Your task to perform on an android device: Add logitech g pro to the cart on amazon, then select checkout. Image 0: 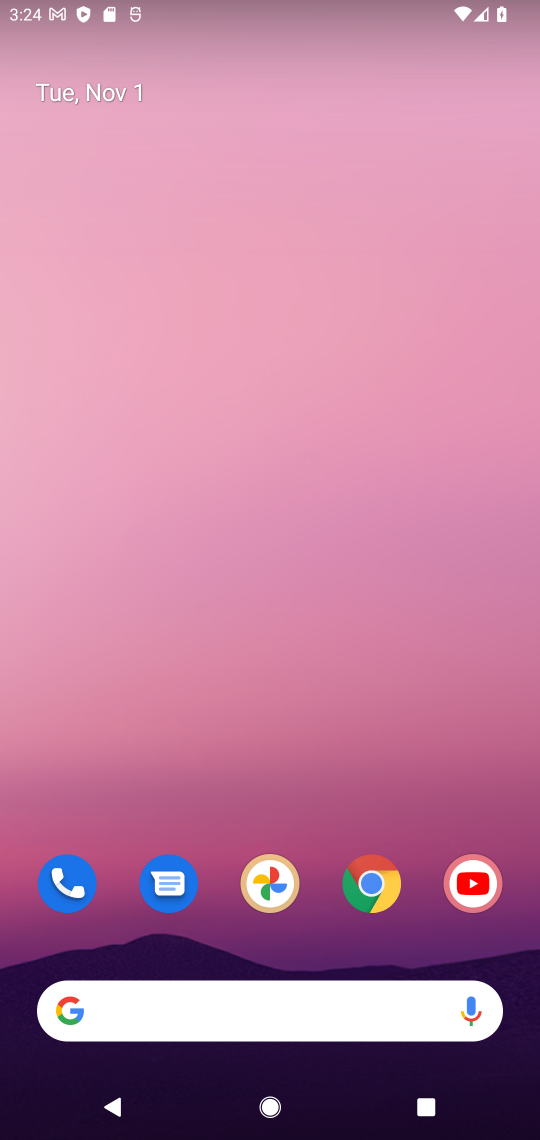
Step 0: click (371, 898)
Your task to perform on an android device: Add logitech g pro to the cart on amazon, then select checkout. Image 1: 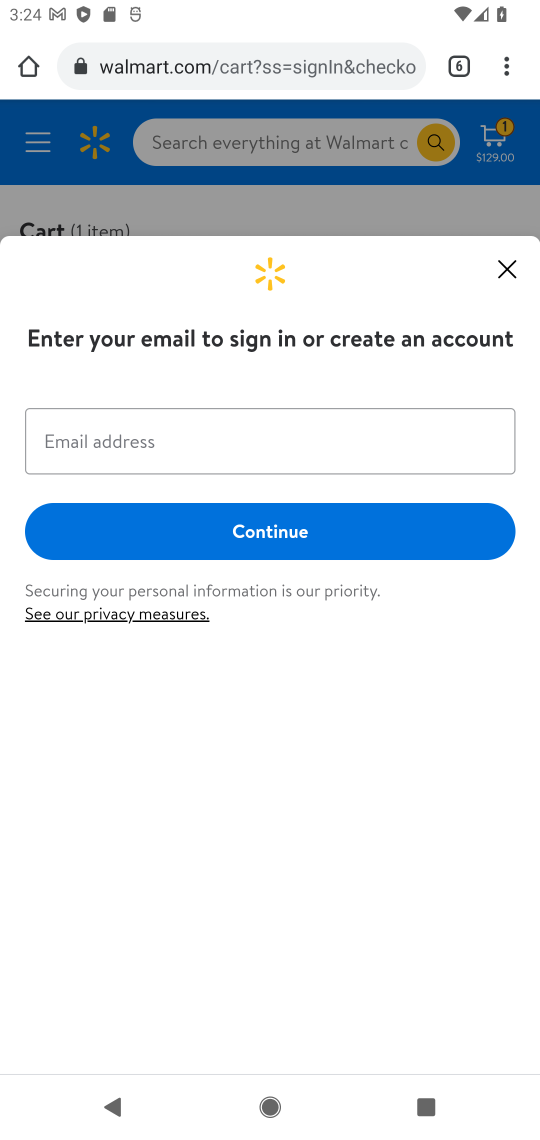
Step 1: click (459, 60)
Your task to perform on an android device: Add logitech g pro to the cart on amazon, then select checkout. Image 2: 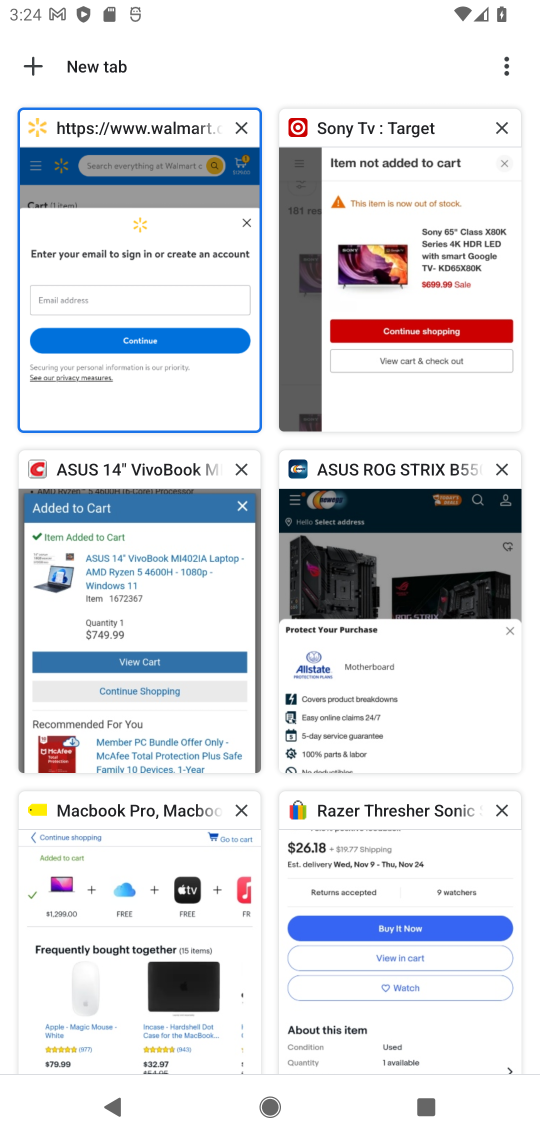
Step 2: click (27, 60)
Your task to perform on an android device: Add logitech g pro to the cart on amazon, then select checkout. Image 3: 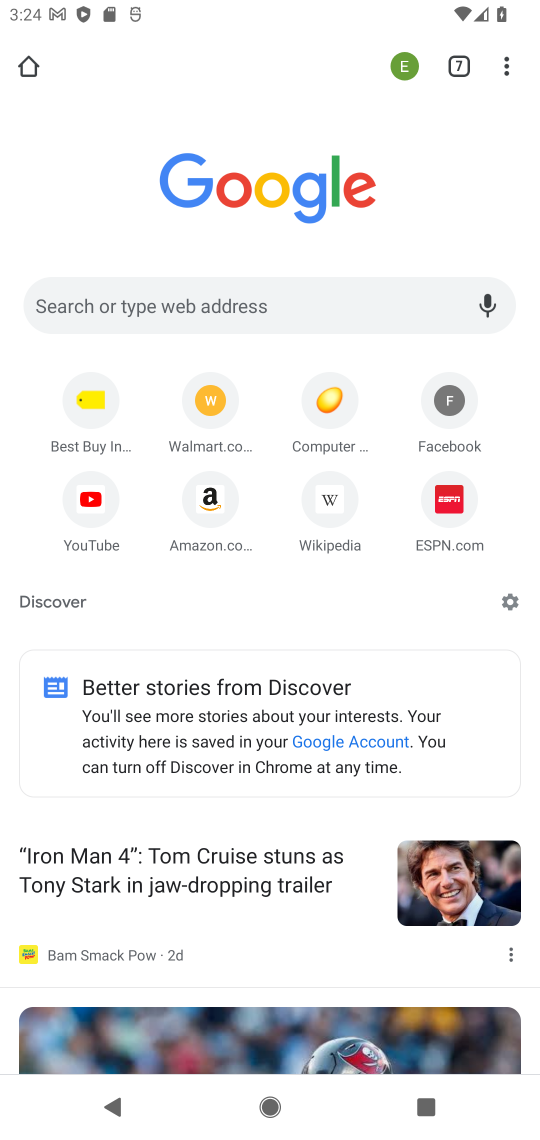
Step 3: type "amazon"
Your task to perform on an android device: Add logitech g pro to the cart on amazon, then select checkout. Image 4: 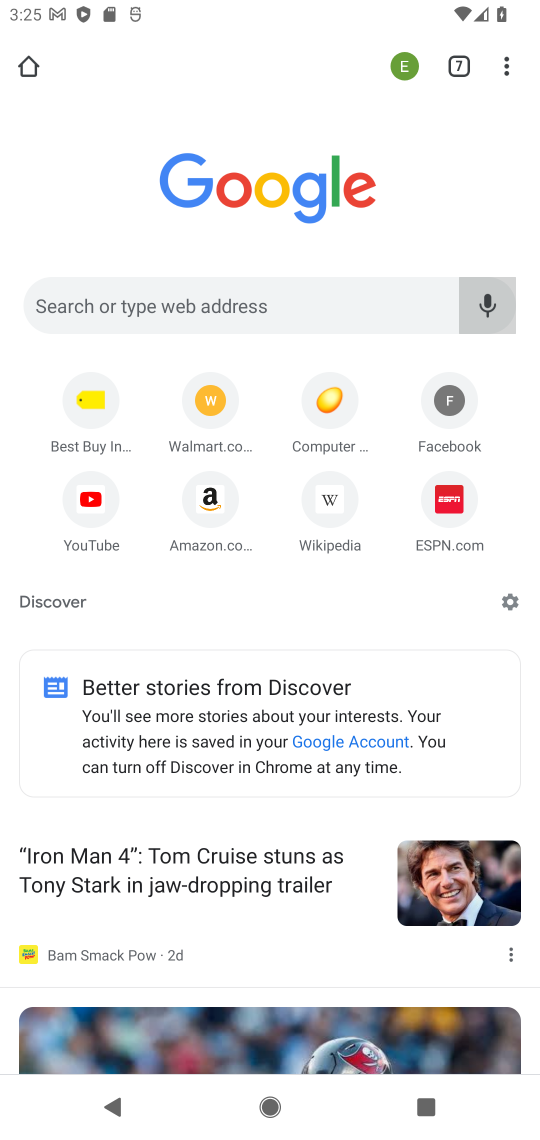
Step 4: click (211, 285)
Your task to perform on an android device: Add logitech g pro to the cart on amazon, then select checkout. Image 5: 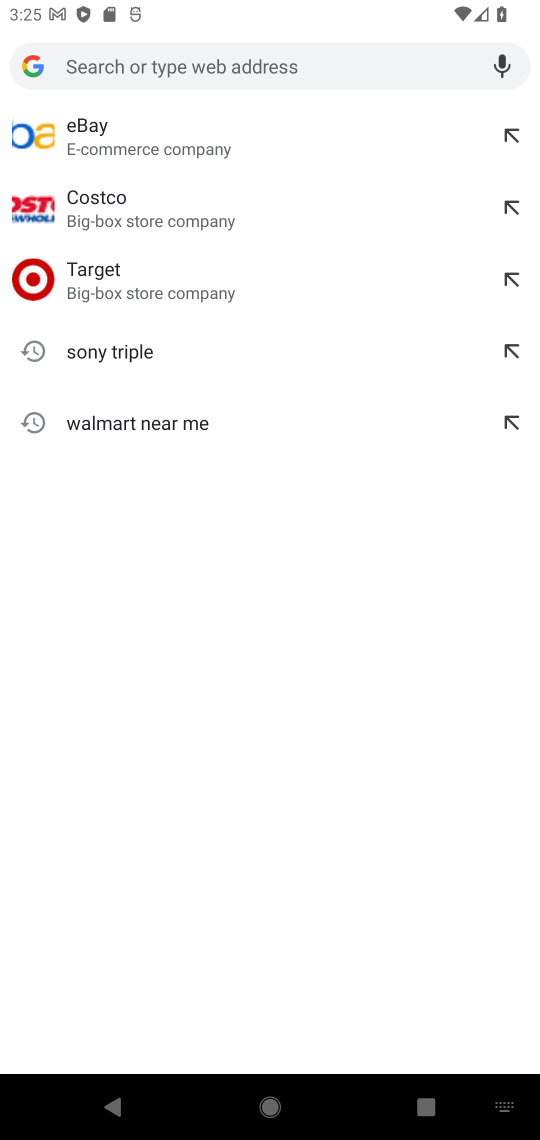
Step 5: type "amazon"
Your task to perform on an android device: Add logitech g pro to the cart on amazon, then select checkout. Image 6: 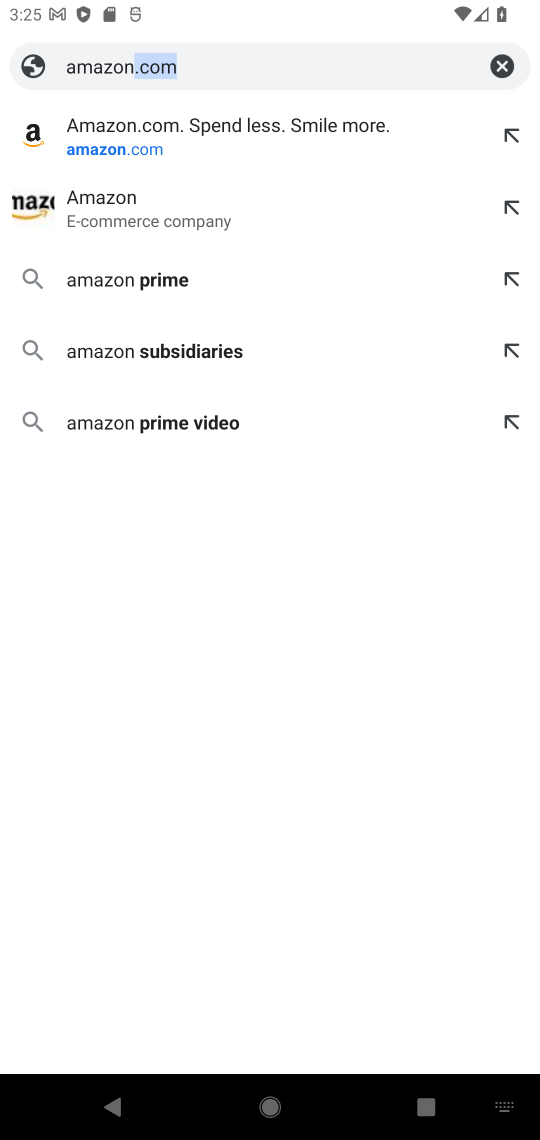
Step 6: click (116, 117)
Your task to perform on an android device: Add logitech g pro to the cart on amazon, then select checkout. Image 7: 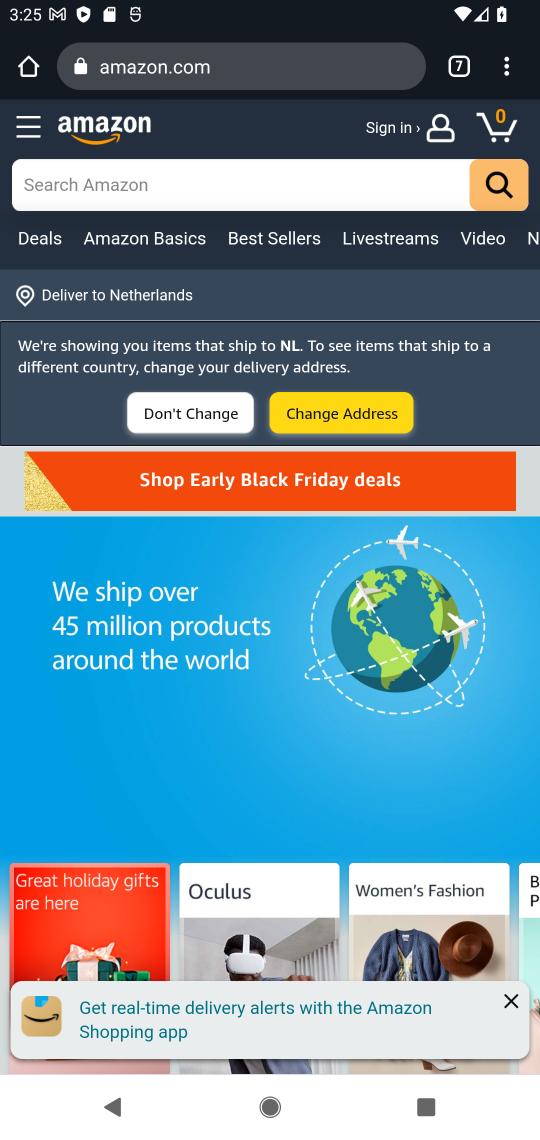
Step 7: click (204, 179)
Your task to perform on an android device: Add logitech g pro to the cart on amazon, then select checkout. Image 8: 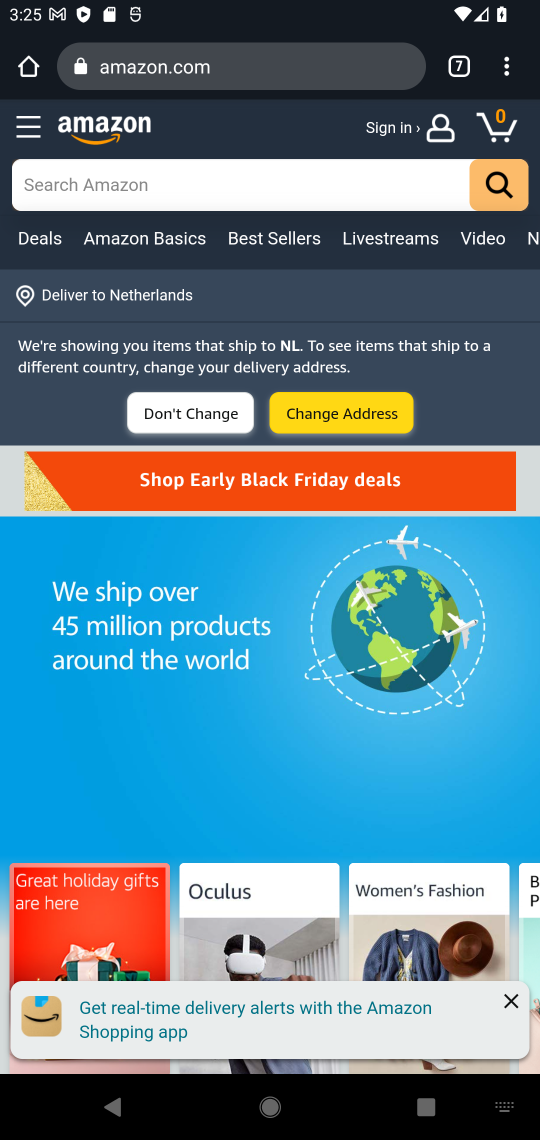
Step 8: type "logitech g pro"
Your task to perform on an android device: Add logitech g pro to the cart on amazon, then select checkout. Image 9: 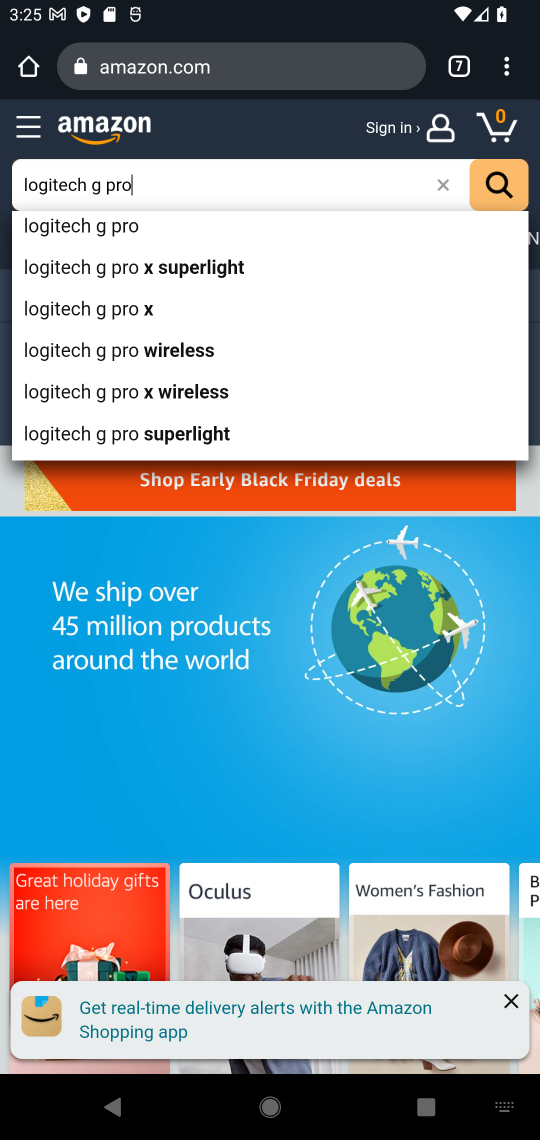
Step 9: click (94, 230)
Your task to perform on an android device: Add logitech g pro to the cart on amazon, then select checkout. Image 10: 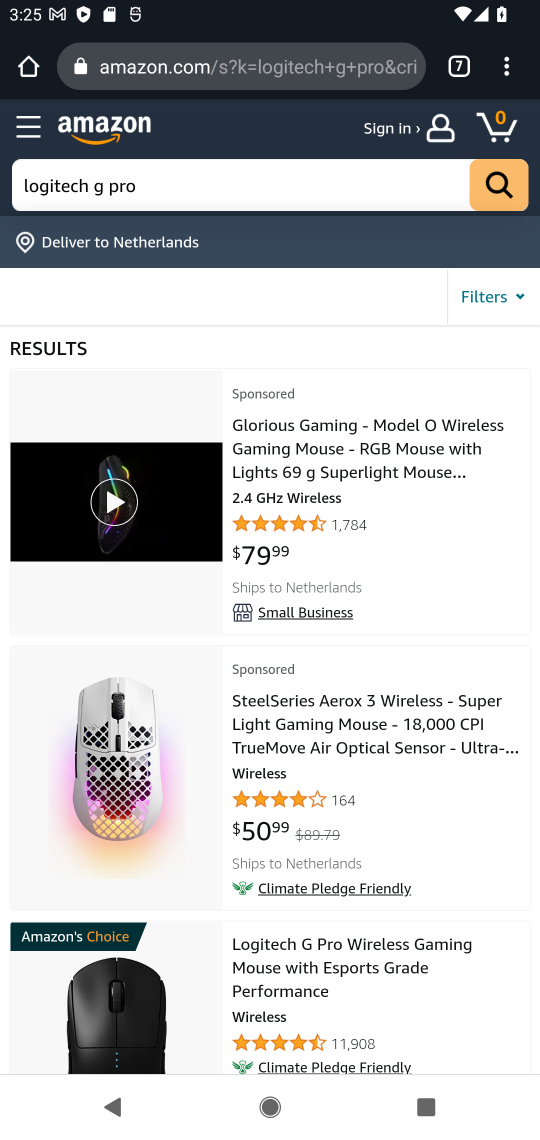
Step 10: click (308, 972)
Your task to perform on an android device: Add logitech g pro to the cart on amazon, then select checkout. Image 11: 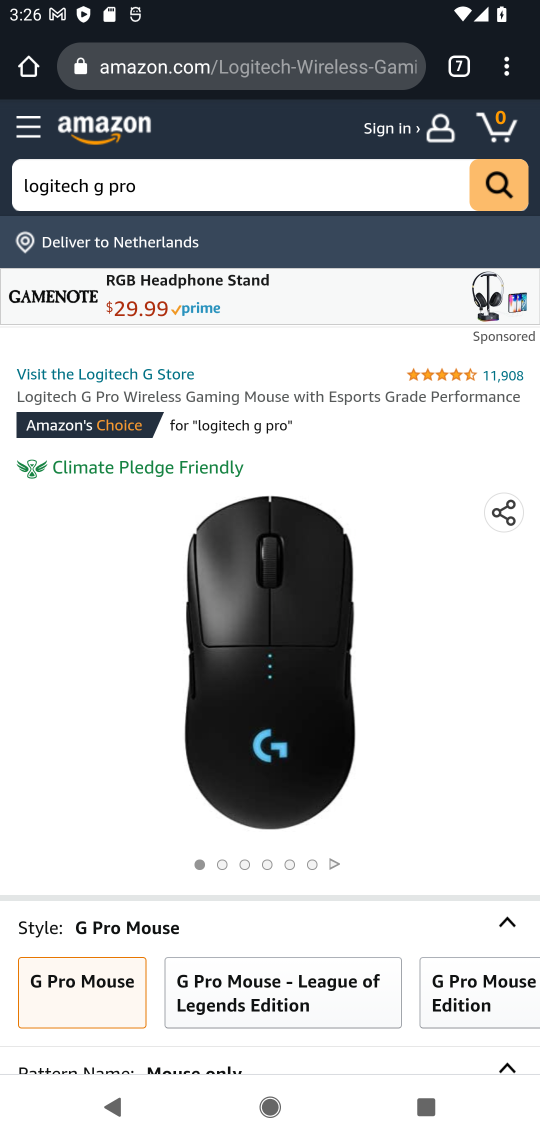
Step 11: drag from (253, 889) to (297, 95)
Your task to perform on an android device: Add logitech g pro to the cart on amazon, then select checkout. Image 12: 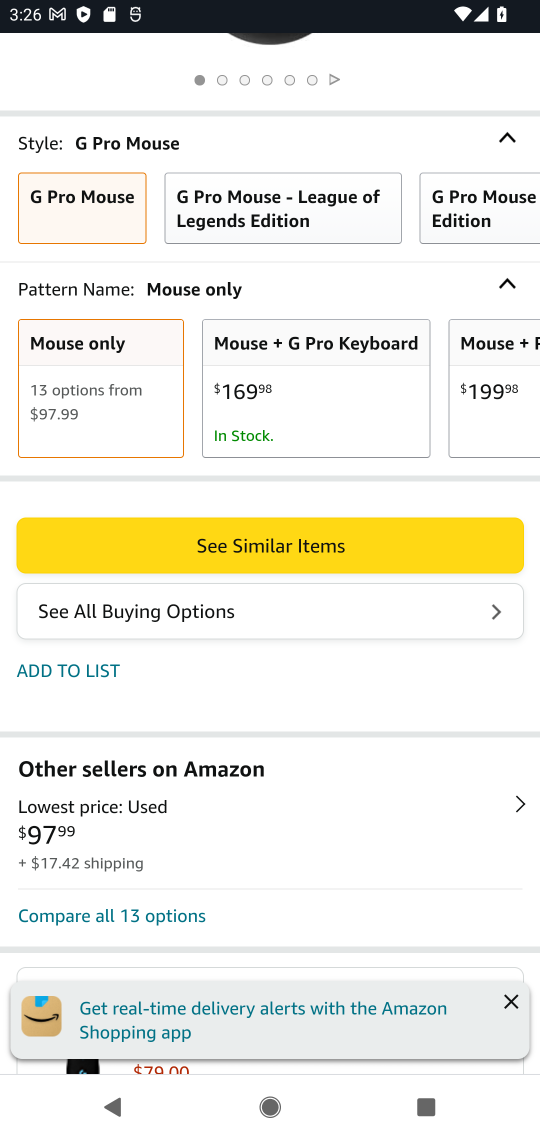
Step 12: drag from (335, 822) to (393, 323)
Your task to perform on an android device: Add logitech g pro to the cart on amazon, then select checkout. Image 13: 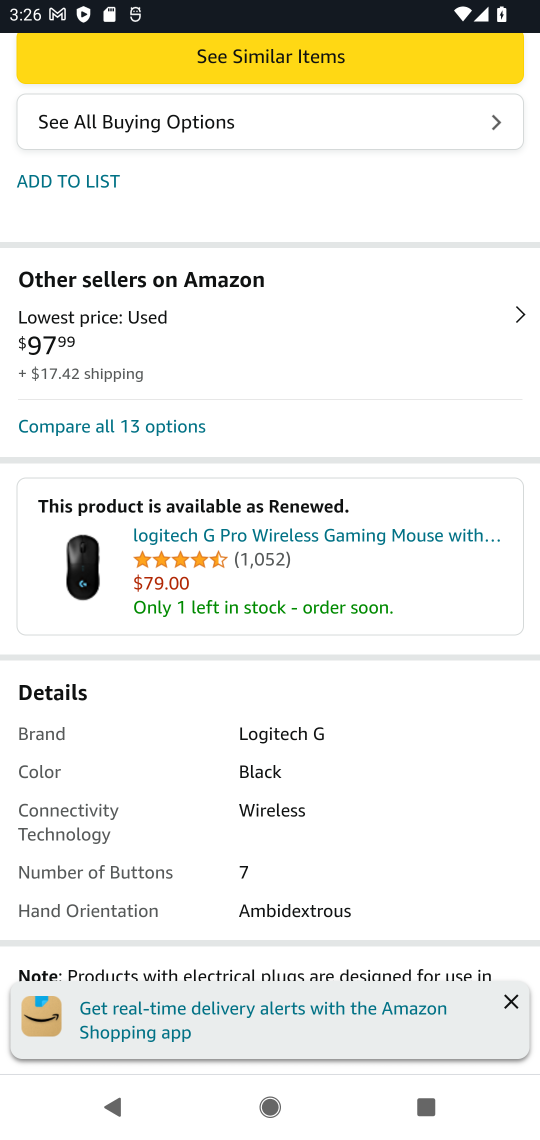
Step 13: click (410, 527)
Your task to perform on an android device: Add logitech g pro to the cart on amazon, then select checkout. Image 14: 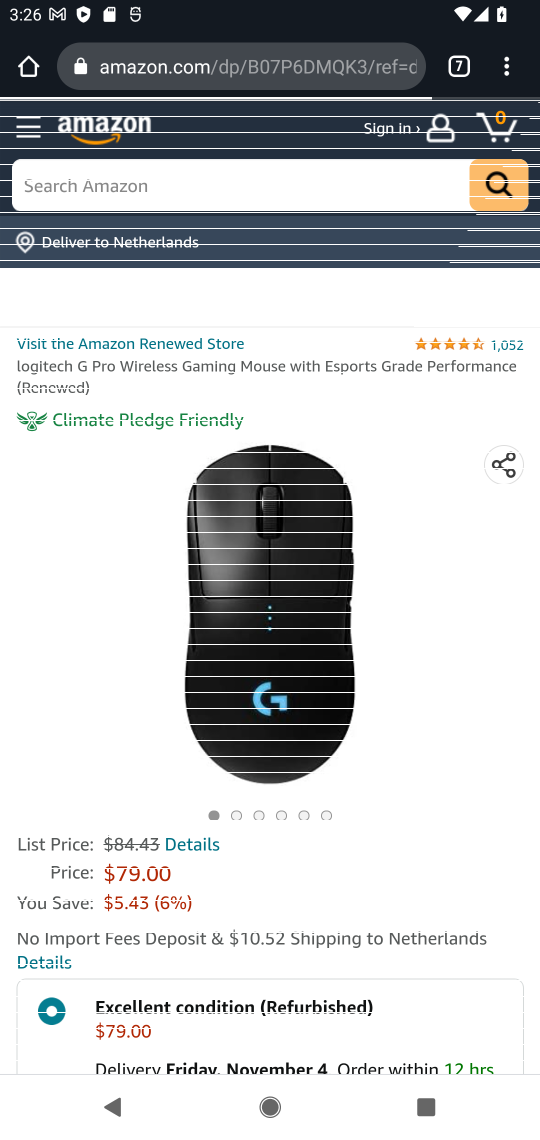
Step 14: drag from (381, 904) to (456, 3)
Your task to perform on an android device: Add logitech g pro to the cart on amazon, then select checkout. Image 15: 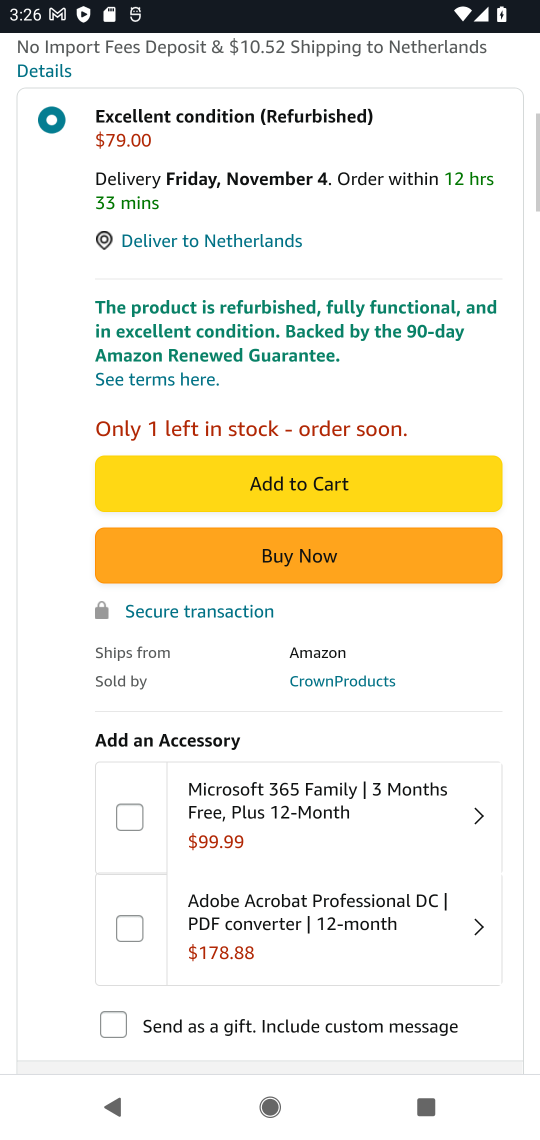
Step 15: click (357, 512)
Your task to perform on an android device: Add logitech g pro to the cart on amazon, then select checkout. Image 16: 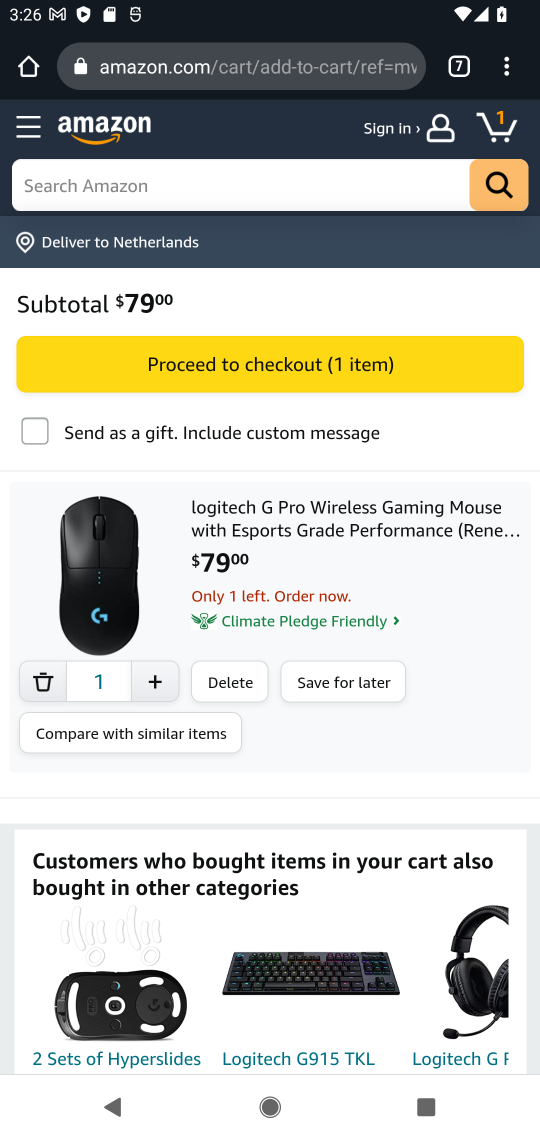
Step 16: click (356, 367)
Your task to perform on an android device: Add logitech g pro to the cart on amazon, then select checkout. Image 17: 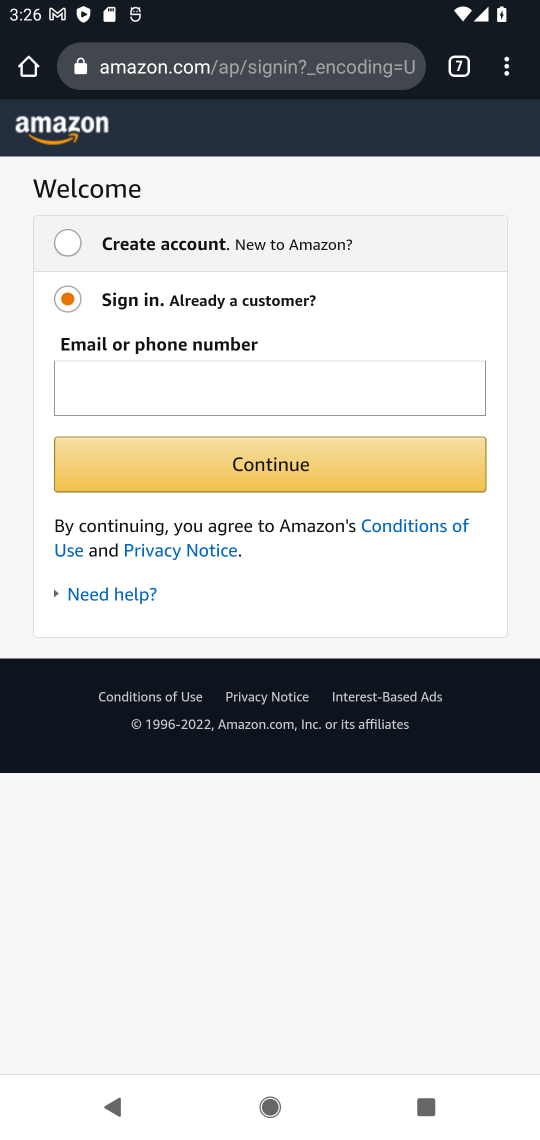
Step 17: task complete